Your task to perform on an android device: Open the stopwatch Image 0: 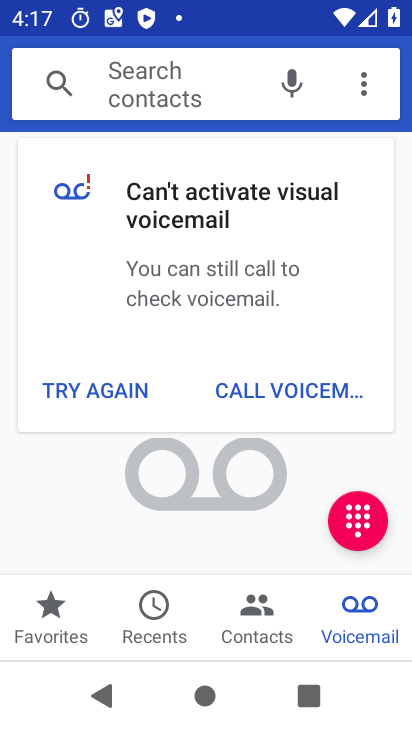
Step 0: press home button
Your task to perform on an android device: Open the stopwatch Image 1: 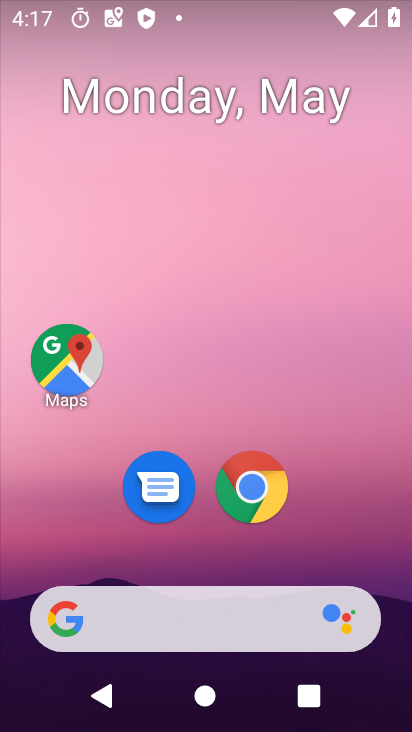
Step 1: drag from (349, 503) to (345, 4)
Your task to perform on an android device: Open the stopwatch Image 2: 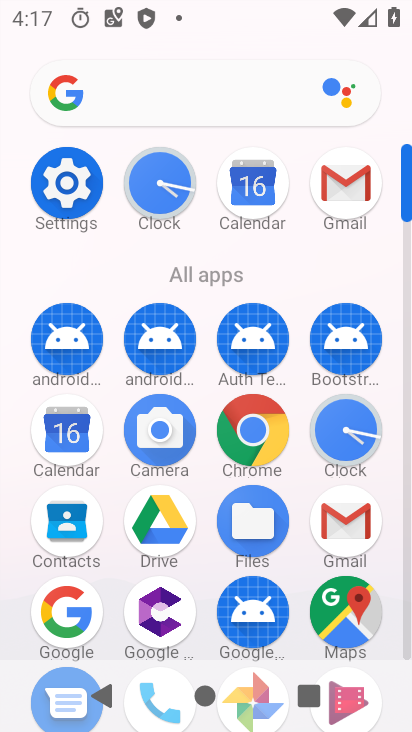
Step 2: click (150, 180)
Your task to perform on an android device: Open the stopwatch Image 3: 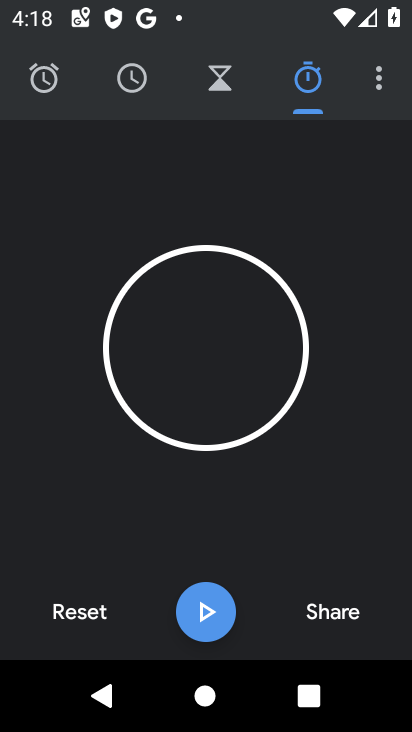
Step 3: task complete